Your task to perform on an android device: Open calendar and show me the second week of next month Image 0: 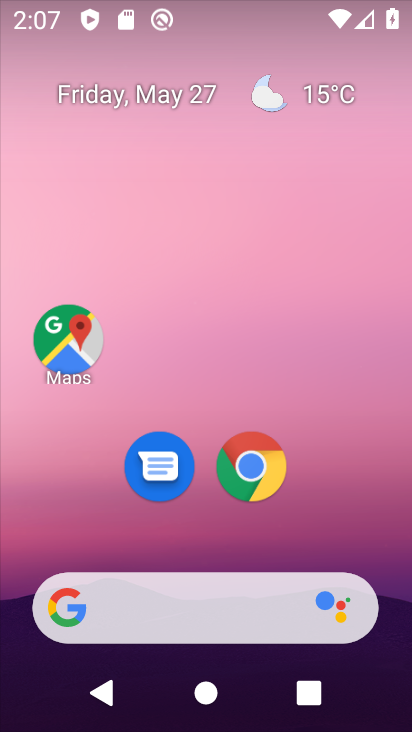
Step 0: drag from (340, 521) to (315, 175)
Your task to perform on an android device: Open calendar and show me the second week of next month Image 1: 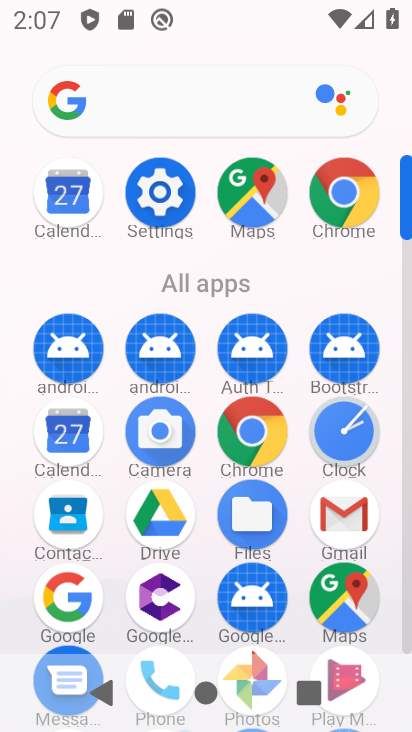
Step 1: click (70, 453)
Your task to perform on an android device: Open calendar and show me the second week of next month Image 2: 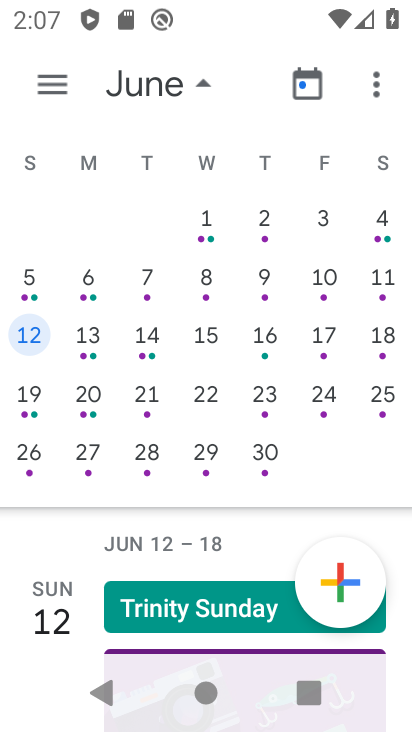
Step 2: click (29, 290)
Your task to perform on an android device: Open calendar and show me the second week of next month Image 3: 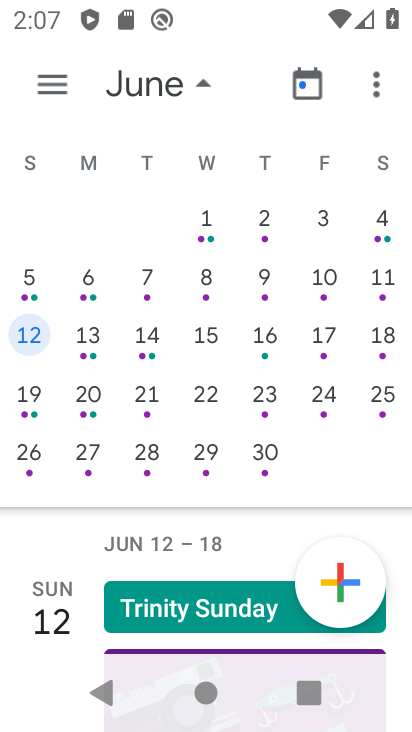
Step 3: click (34, 290)
Your task to perform on an android device: Open calendar and show me the second week of next month Image 4: 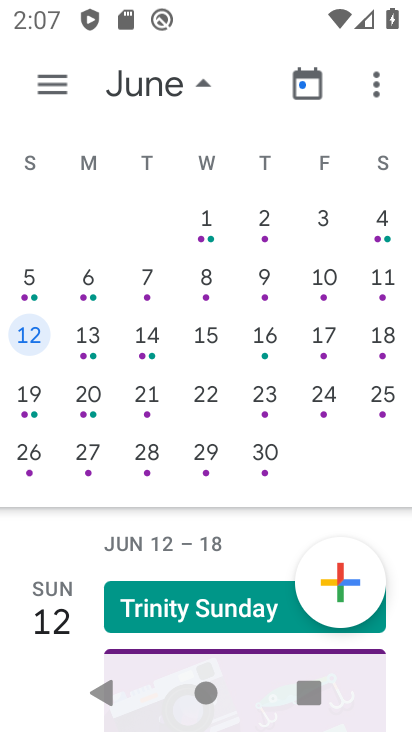
Step 4: click (35, 287)
Your task to perform on an android device: Open calendar and show me the second week of next month Image 5: 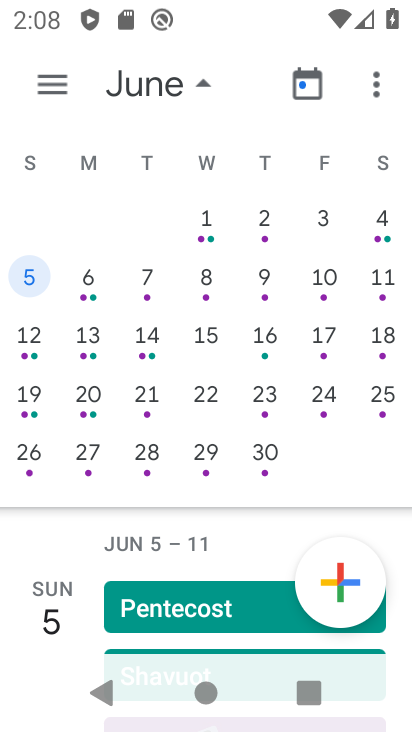
Step 5: task complete